Your task to perform on an android device: open app "Adobe Express: Graphic Design" (install if not already installed) and go to login screen Image 0: 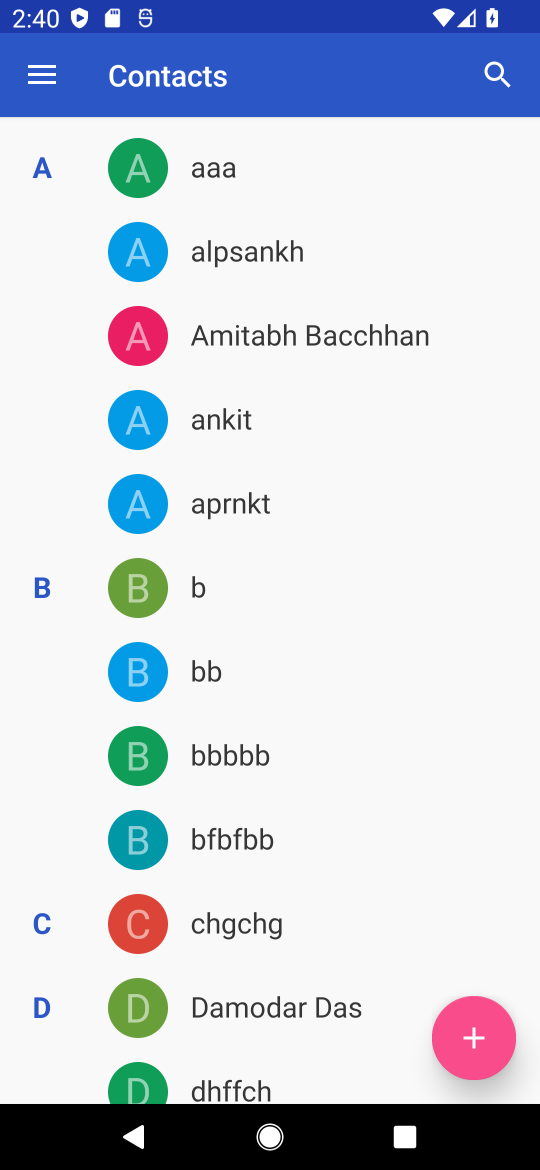
Step 0: press home button
Your task to perform on an android device: open app "Adobe Express: Graphic Design" (install if not already installed) and go to login screen Image 1: 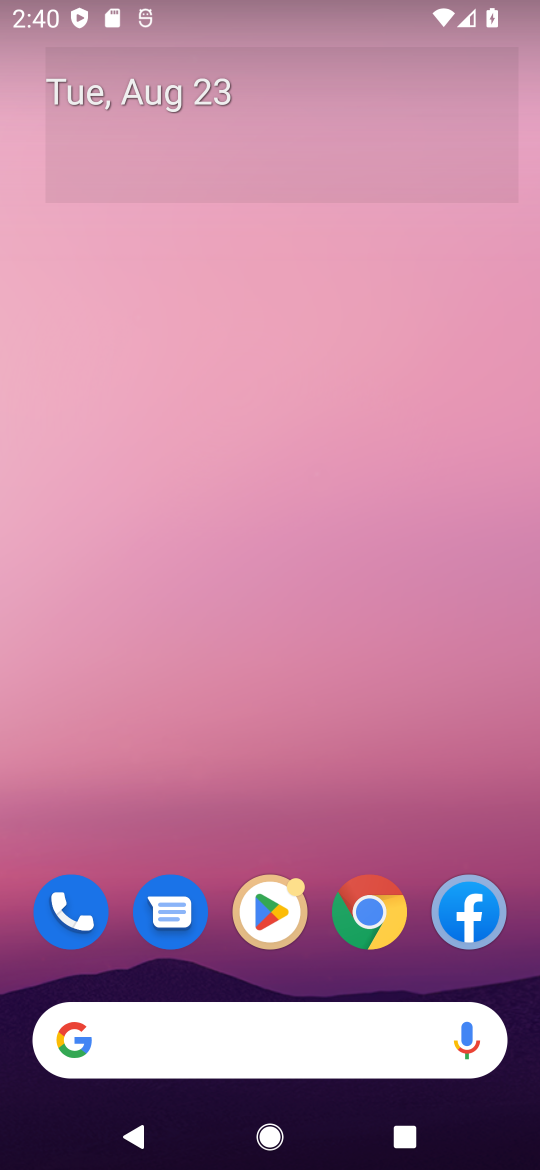
Step 1: drag from (213, 1022) to (124, 96)
Your task to perform on an android device: open app "Adobe Express: Graphic Design" (install if not already installed) and go to login screen Image 2: 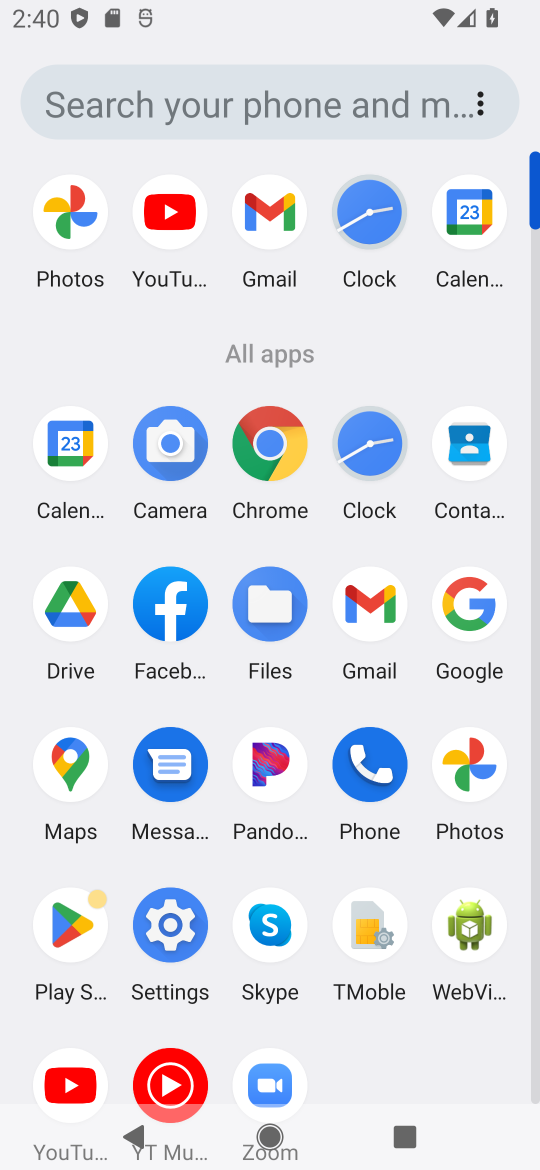
Step 2: click (78, 927)
Your task to perform on an android device: open app "Adobe Express: Graphic Design" (install if not already installed) and go to login screen Image 3: 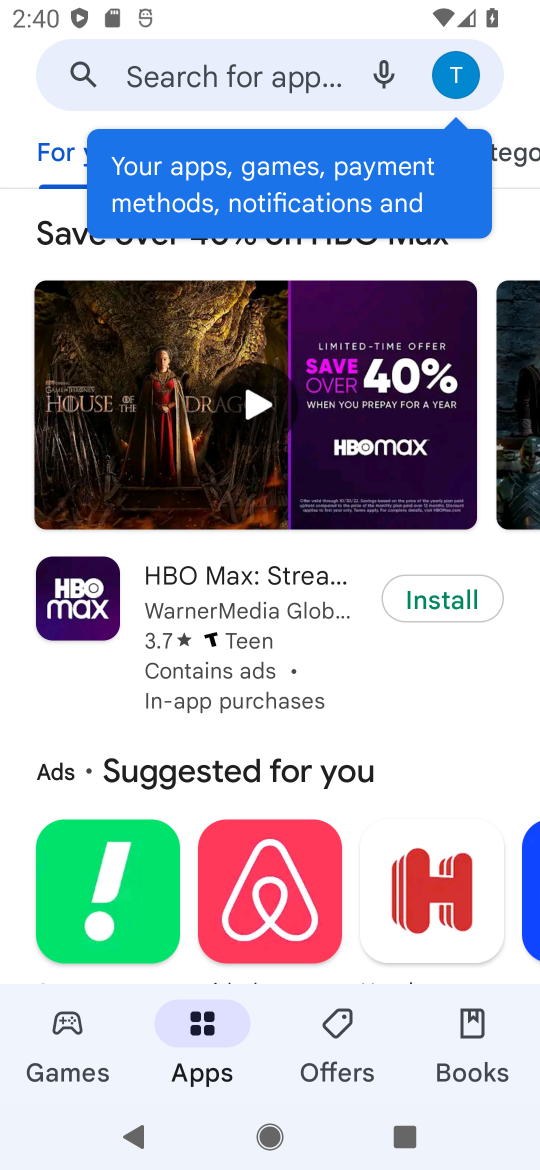
Step 3: click (223, 74)
Your task to perform on an android device: open app "Adobe Express: Graphic Design" (install if not already installed) and go to login screen Image 4: 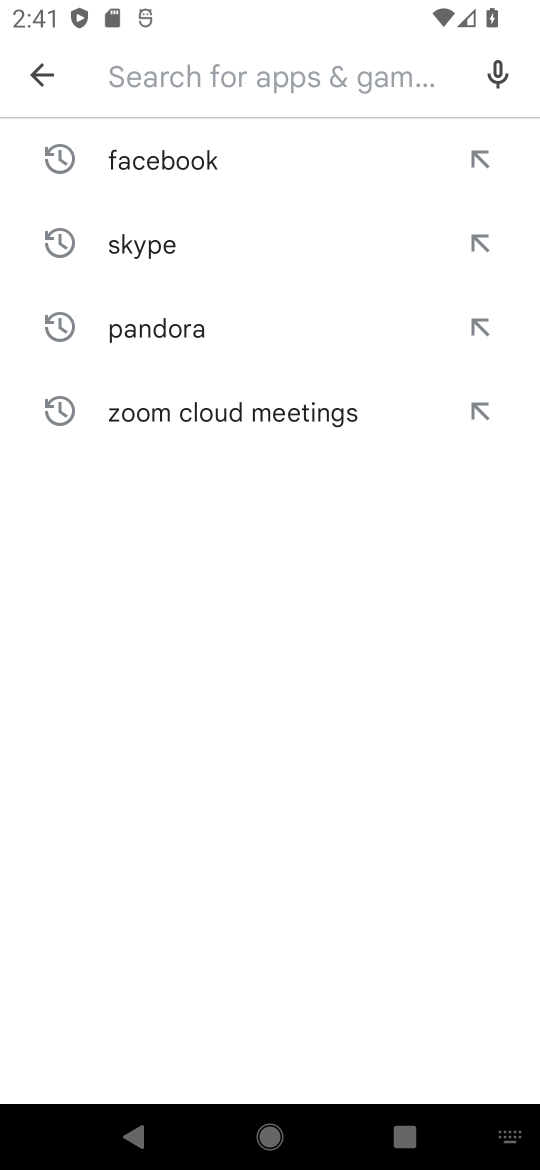
Step 4: click (171, 100)
Your task to perform on an android device: open app "Adobe Express: Graphic Design" (install if not already installed) and go to login screen Image 5: 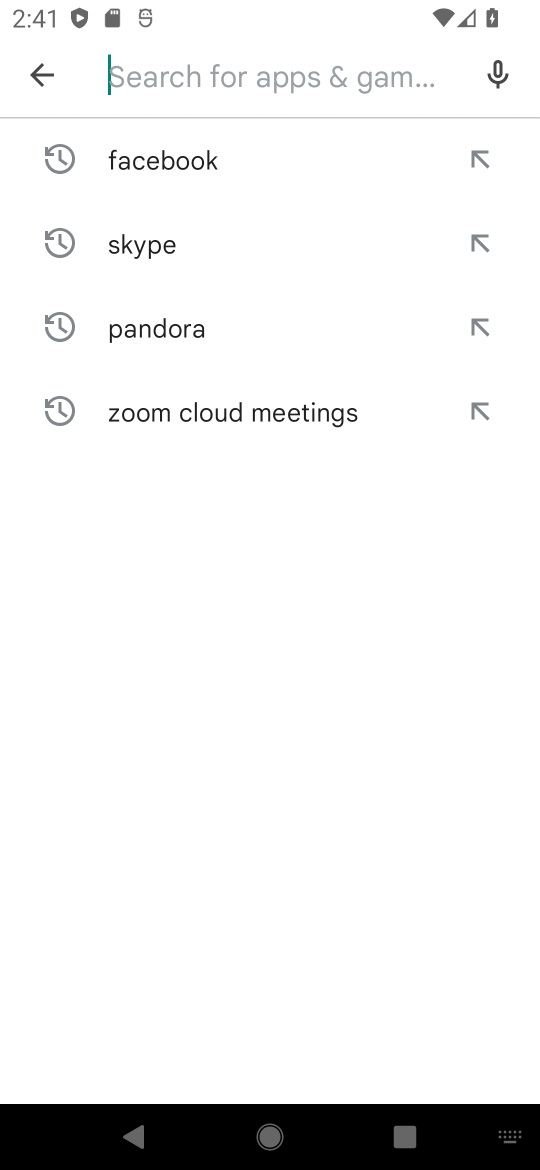
Step 5: type "Adobe Express: Graphic Design"
Your task to perform on an android device: open app "Adobe Express: Graphic Design" (install if not already installed) and go to login screen Image 6: 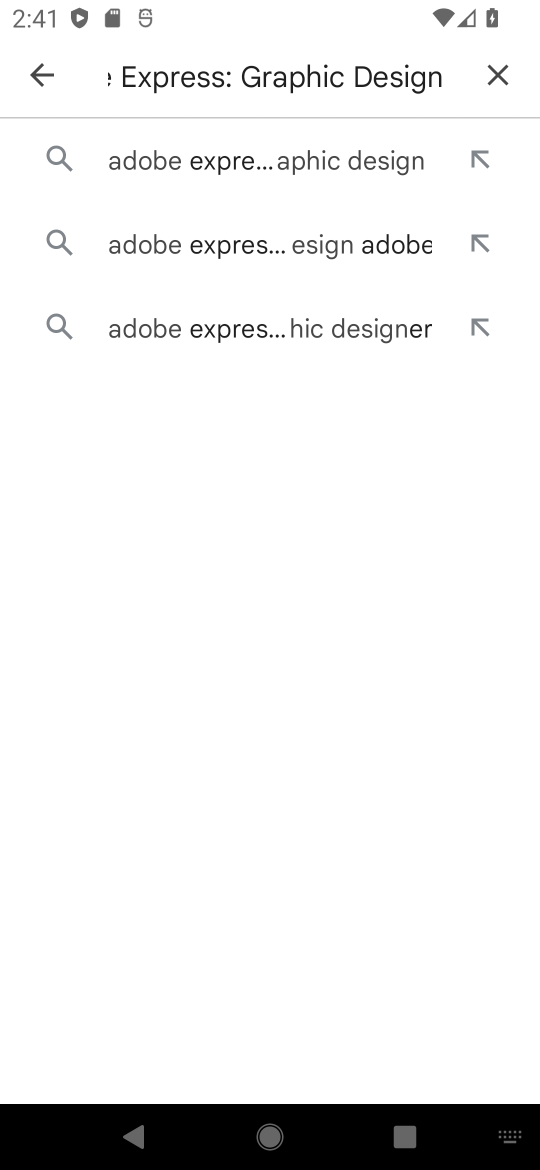
Step 6: click (214, 166)
Your task to perform on an android device: open app "Adobe Express: Graphic Design" (install if not already installed) and go to login screen Image 7: 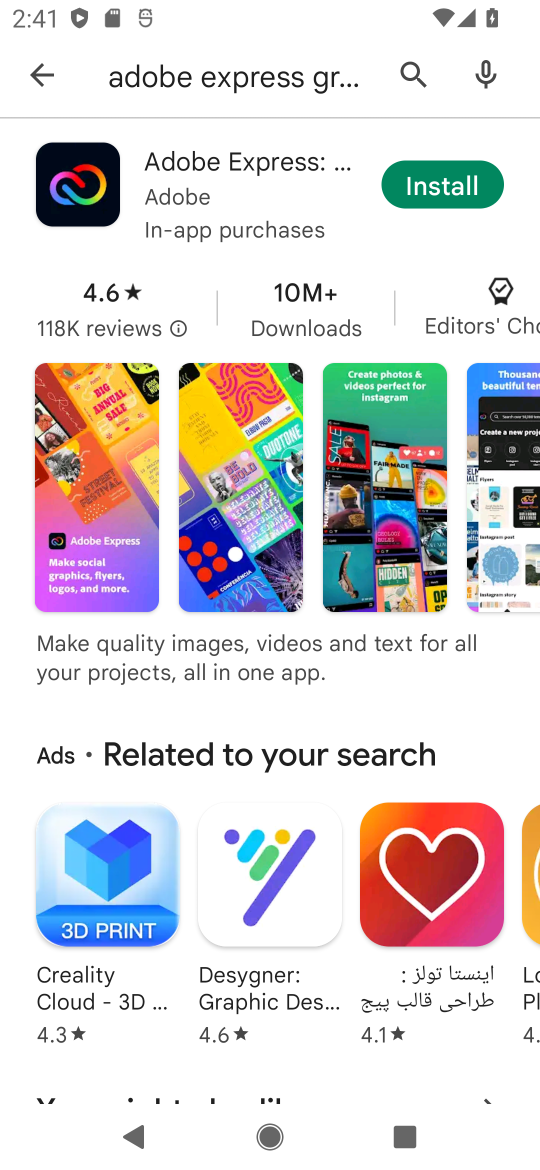
Step 7: click (472, 186)
Your task to perform on an android device: open app "Adobe Express: Graphic Design" (install if not already installed) and go to login screen Image 8: 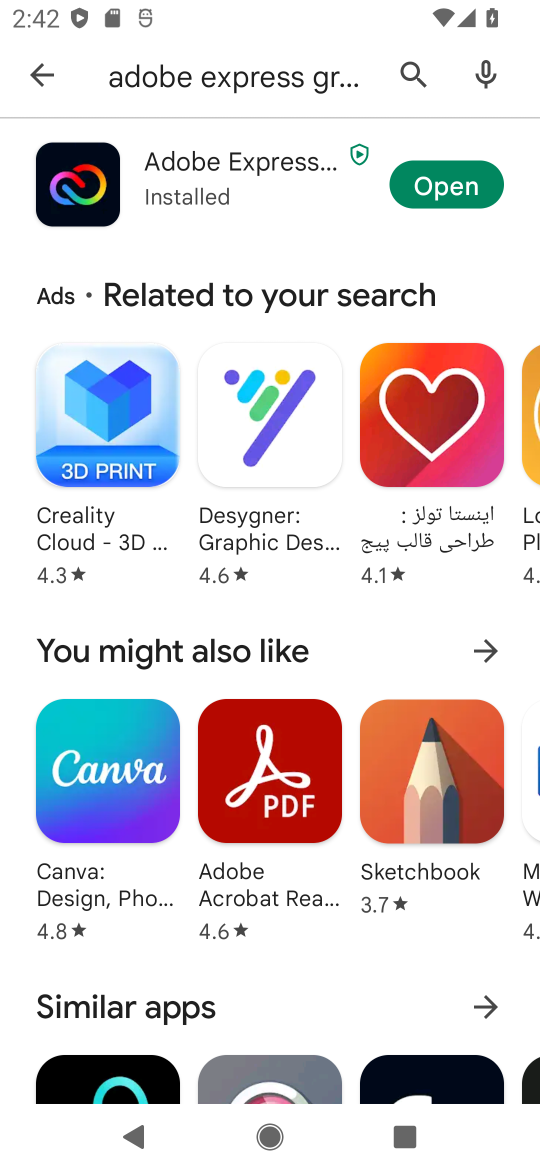
Step 8: click (472, 186)
Your task to perform on an android device: open app "Adobe Express: Graphic Design" (install if not already installed) and go to login screen Image 9: 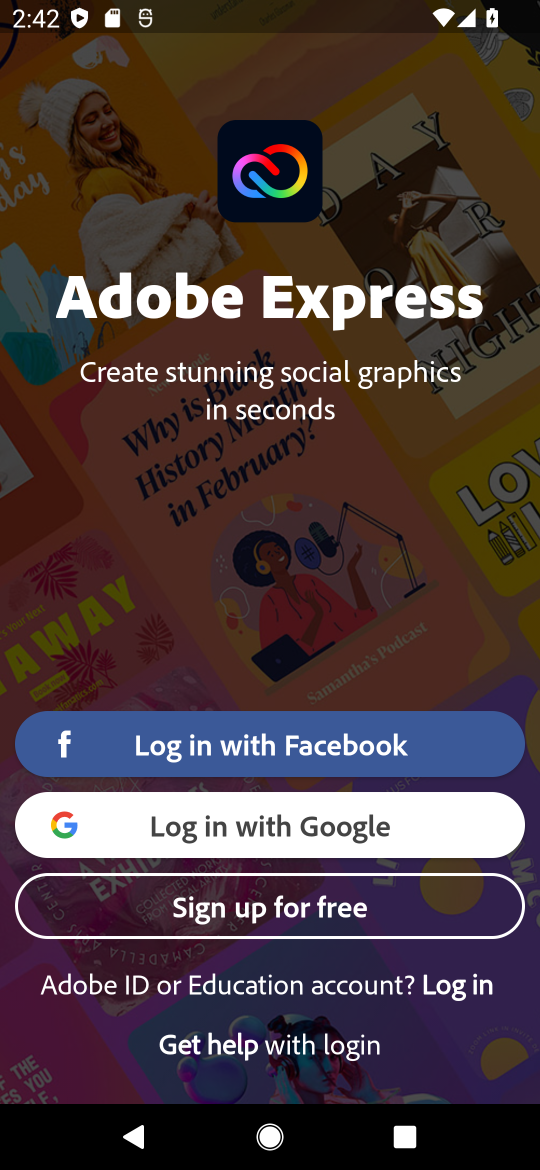
Step 9: click (448, 978)
Your task to perform on an android device: open app "Adobe Express: Graphic Design" (install if not already installed) and go to login screen Image 10: 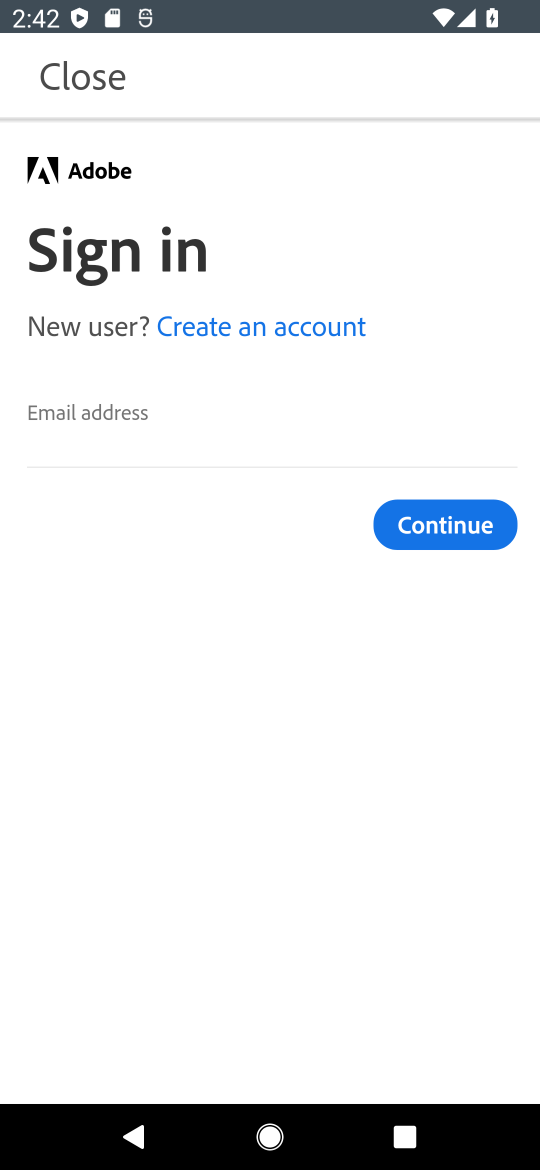
Step 10: task complete